Your task to perform on an android device: turn on sleep mode Image 0: 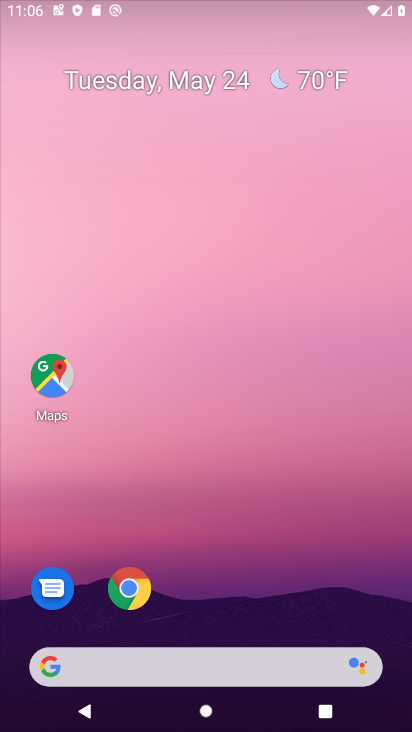
Step 0: press home button
Your task to perform on an android device: turn on sleep mode Image 1: 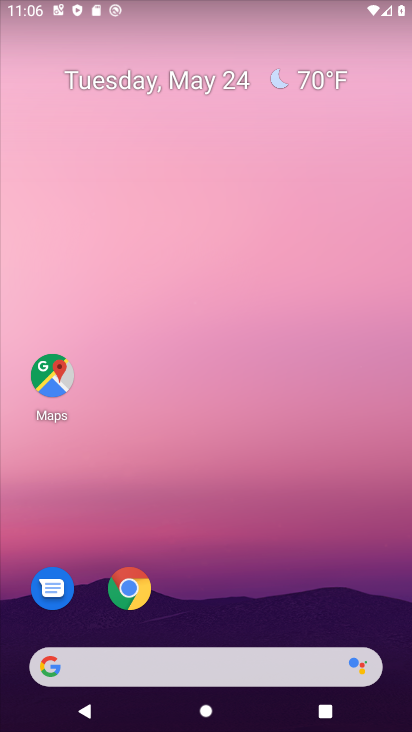
Step 1: drag from (208, 634) to (216, 110)
Your task to perform on an android device: turn on sleep mode Image 2: 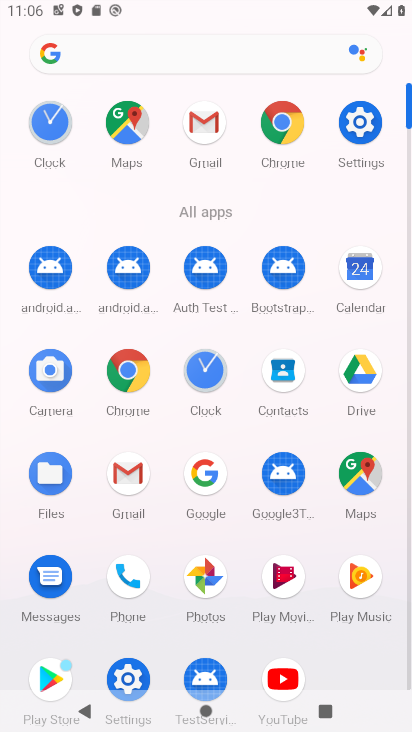
Step 2: click (349, 123)
Your task to perform on an android device: turn on sleep mode Image 3: 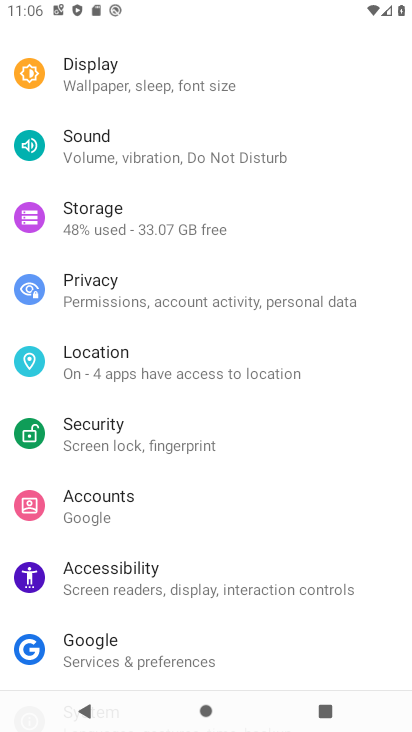
Step 3: click (132, 64)
Your task to perform on an android device: turn on sleep mode Image 4: 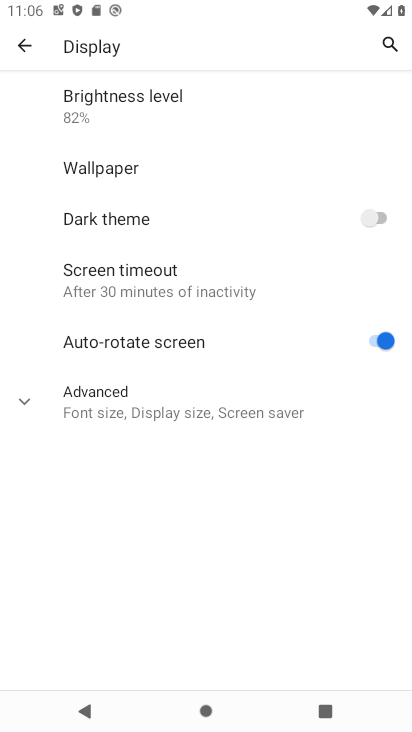
Step 4: click (27, 395)
Your task to perform on an android device: turn on sleep mode Image 5: 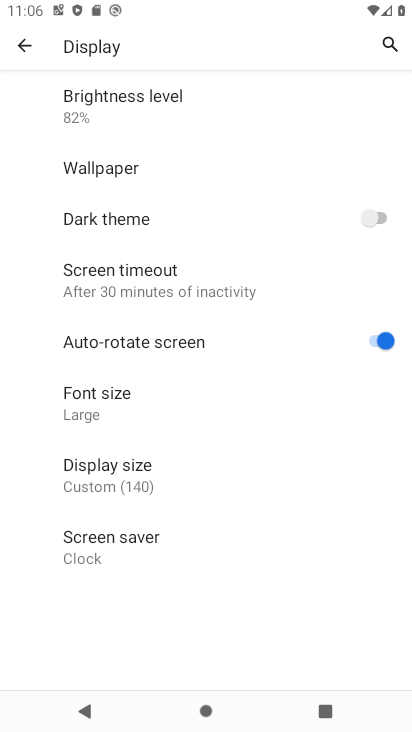
Step 5: task complete